Your task to perform on an android device: make emails show in primary in the gmail app Image 0: 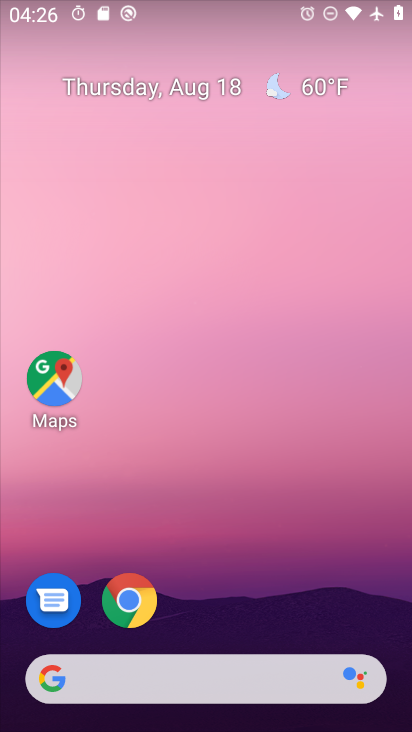
Step 0: press home button
Your task to perform on an android device: make emails show in primary in the gmail app Image 1: 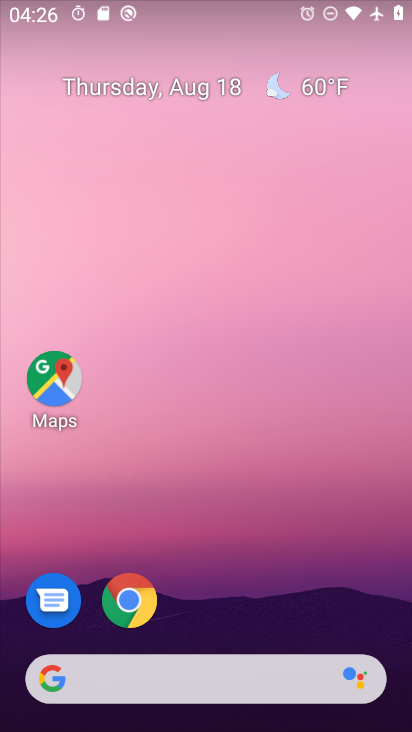
Step 1: drag from (239, 590) to (241, 66)
Your task to perform on an android device: make emails show in primary in the gmail app Image 2: 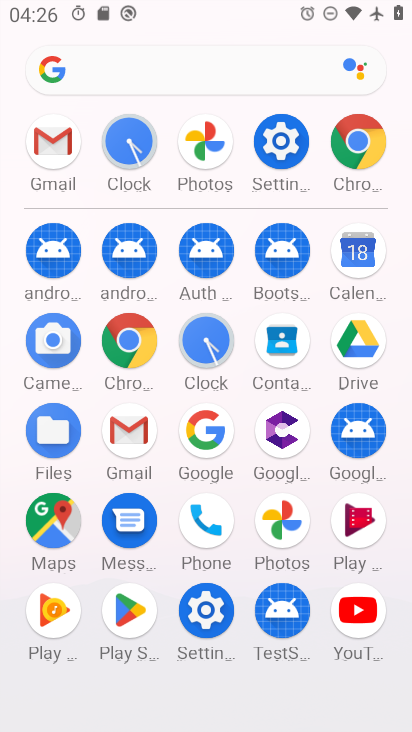
Step 2: click (61, 153)
Your task to perform on an android device: make emails show in primary in the gmail app Image 3: 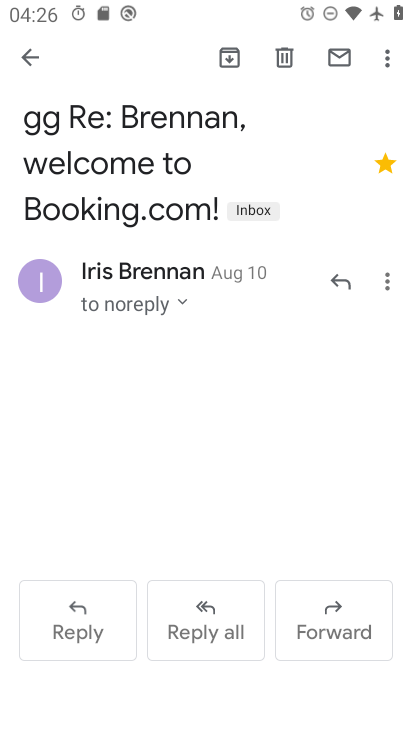
Step 3: press back button
Your task to perform on an android device: make emails show in primary in the gmail app Image 4: 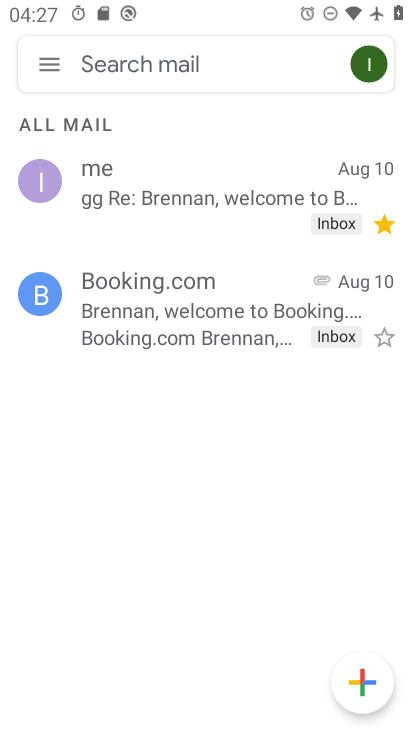
Step 4: click (64, 66)
Your task to perform on an android device: make emails show in primary in the gmail app Image 5: 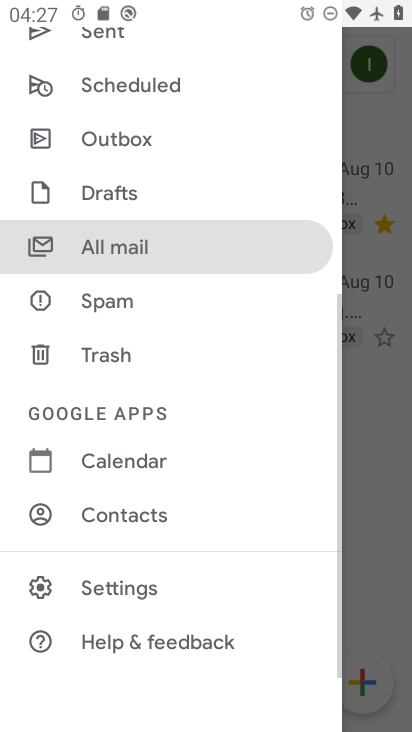
Step 5: click (98, 601)
Your task to perform on an android device: make emails show in primary in the gmail app Image 6: 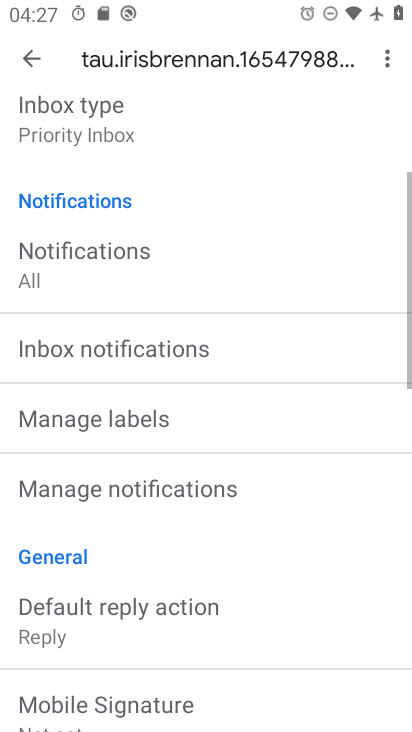
Step 6: task complete